Your task to perform on an android device: turn on translation in the chrome app Image 0: 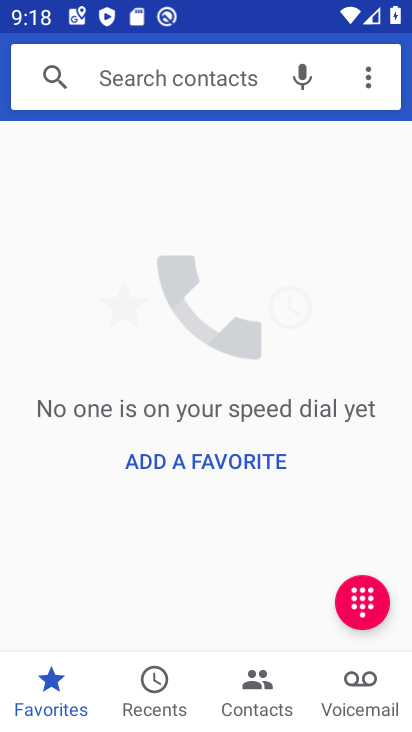
Step 0: press home button
Your task to perform on an android device: turn on translation in the chrome app Image 1: 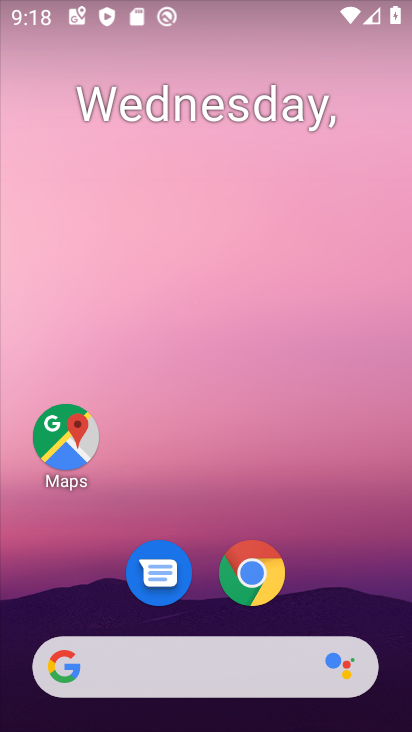
Step 1: click (262, 558)
Your task to perform on an android device: turn on translation in the chrome app Image 2: 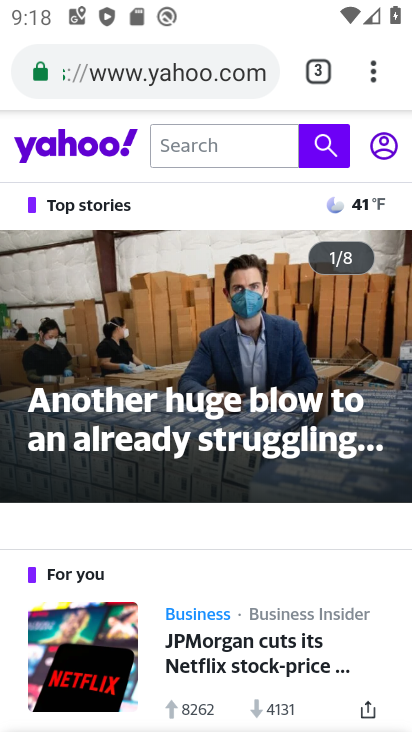
Step 2: click (374, 66)
Your task to perform on an android device: turn on translation in the chrome app Image 3: 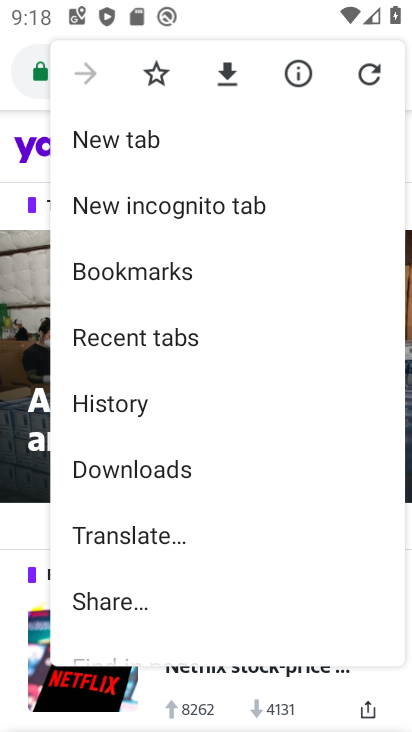
Step 3: drag from (276, 591) to (256, 242)
Your task to perform on an android device: turn on translation in the chrome app Image 4: 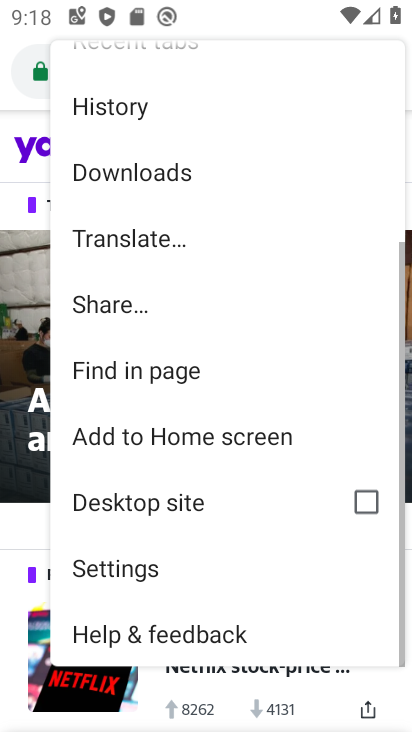
Step 4: click (87, 562)
Your task to perform on an android device: turn on translation in the chrome app Image 5: 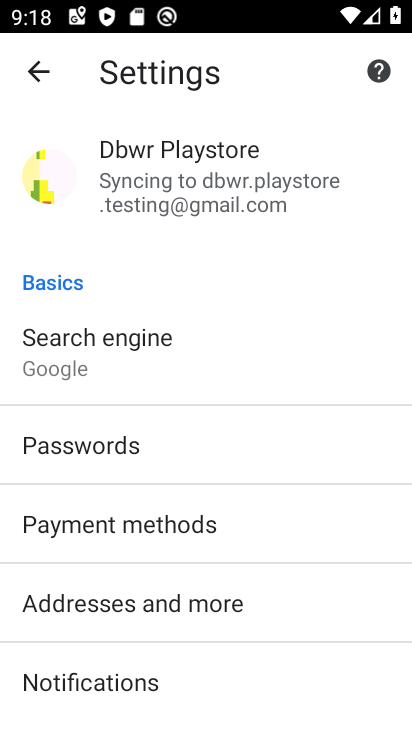
Step 5: drag from (341, 672) to (343, 351)
Your task to perform on an android device: turn on translation in the chrome app Image 6: 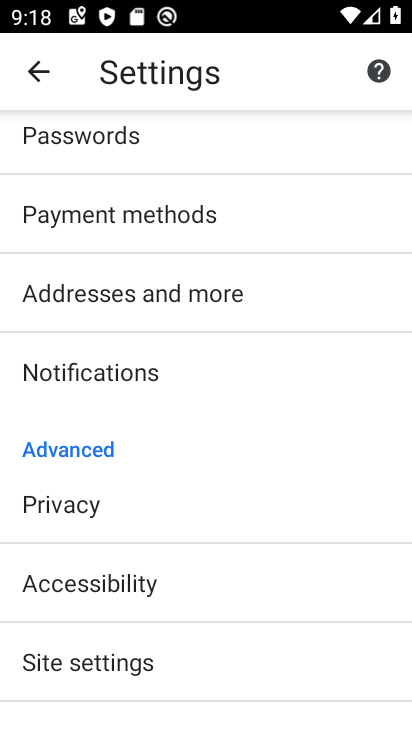
Step 6: drag from (299, 665) to (305, 306)
Your task to perform on an android device: turn on translation in the chrome app Image 7: 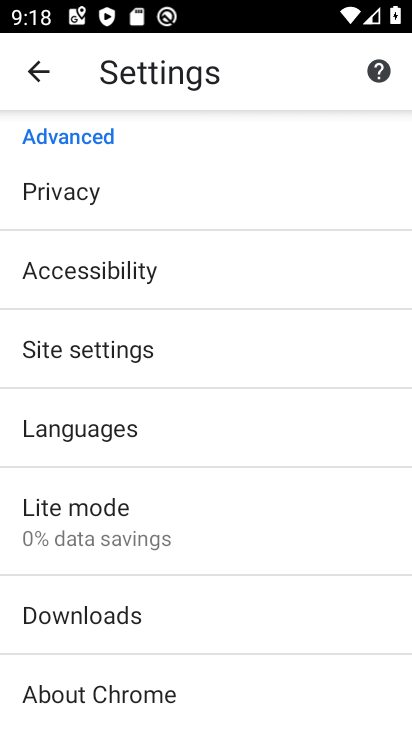
Step 7: click (84, 421)
Your task to perform on an android device: turn on translation in the chrome app Image 8: 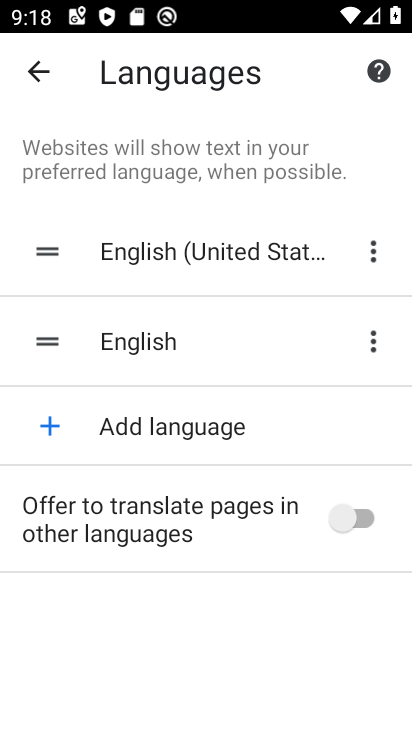
Step 8: click (361, 517)
Your task to perform on an android device: turn on translation in the chrome app Image 9: 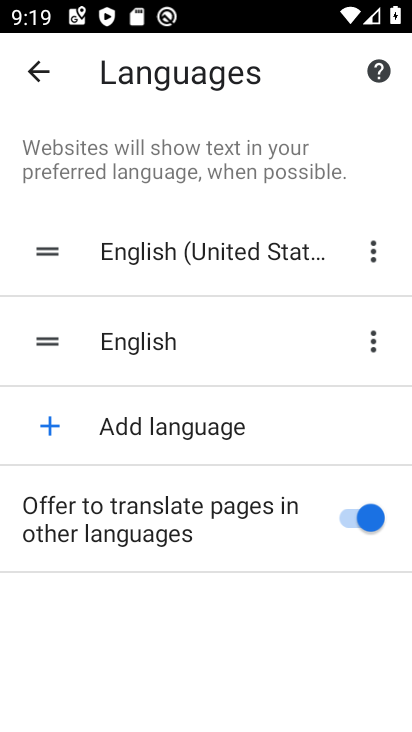
Step 9: task complete